Your task to perform on an android device: see sites visited before in the chrome app Image 0: 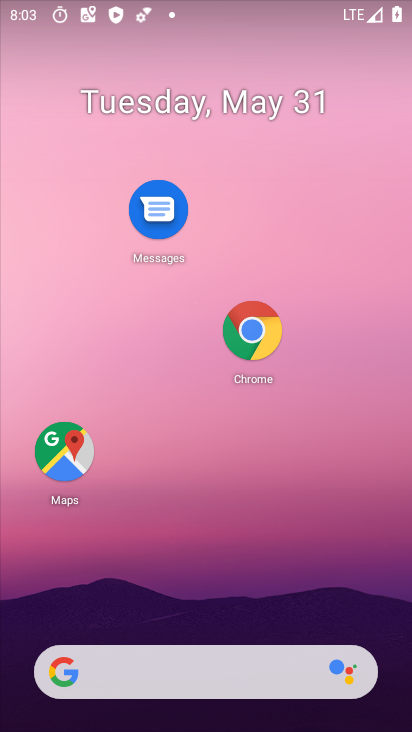
Step 0: click (249, 334)
Your task to perform on an android device: see sites visited before in the chrome app Image 1: 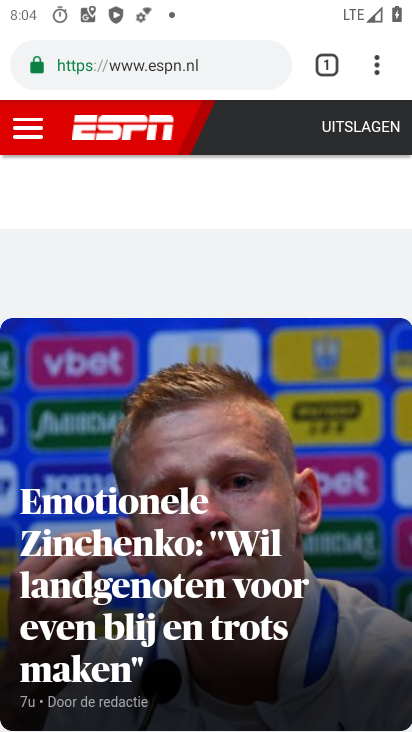
Step 1: click (381, 72)
Your task to perform on an android device: see sites visited before in the chrome app Image 2: 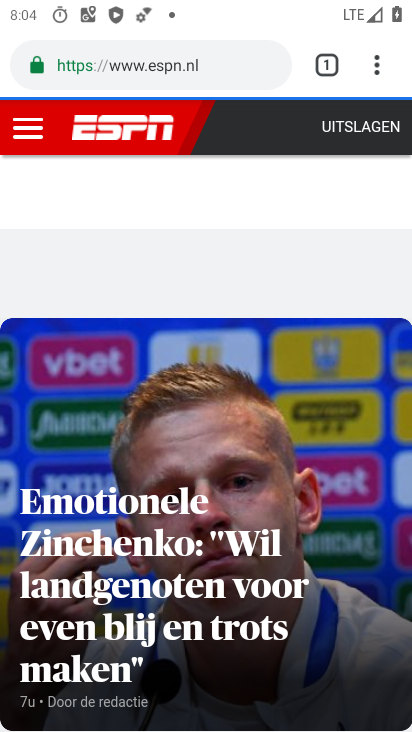
Step 2: click (371, 54)
Your task to perform on an android device: see sites visited before in the chrome app Image 3: 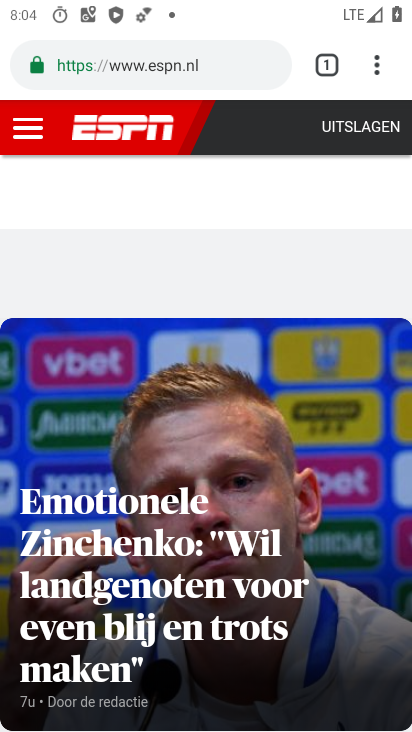
Step 3: click (371, 69)
Your task to perform on an android device: see sites visited before in the chrome app Image 4: 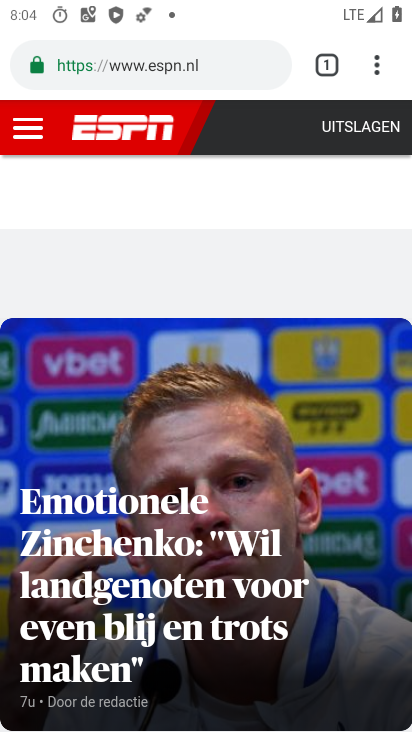
Step 4: click (378, 72)
Your task to perform on an android device: see sites visited before in the chrome app Image 5: 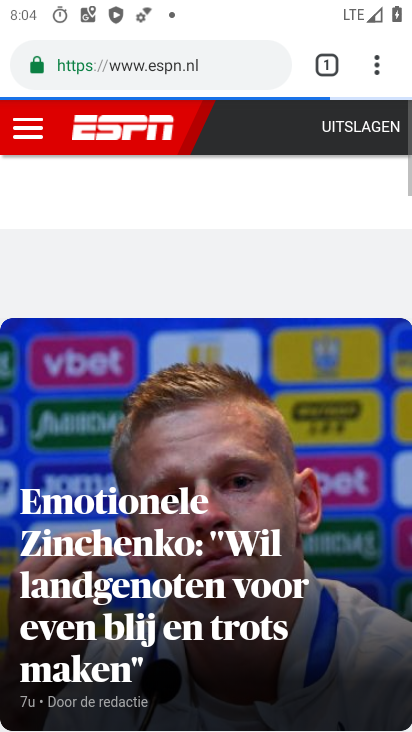
Step 5: click (377, 59)
Your task to perform on an android device: see sites visited before in the chrome app Image 6: 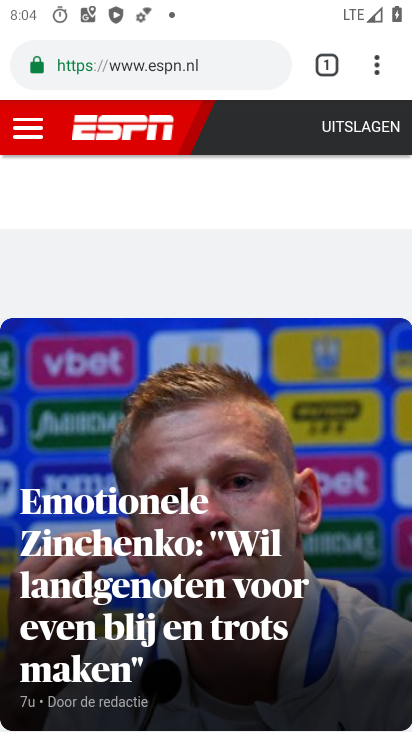
Step 6: click (380, 64)
Your task to perform on an android device: see sites visited before in the chrome app Image 7: 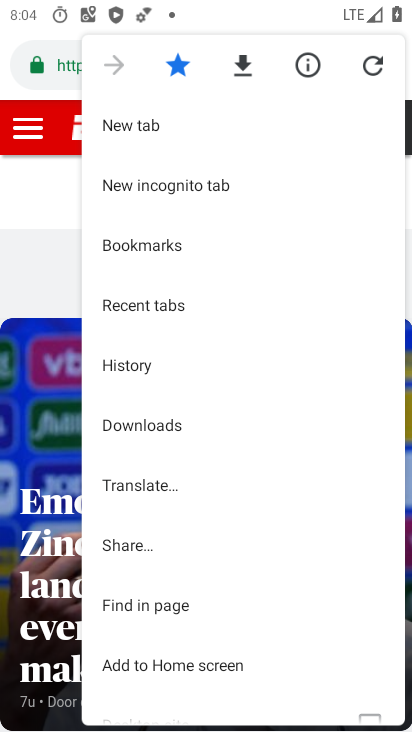
Step 7: click (157, 362)
Your task to perform on an android device: see sites visited before in the chrome app Image 8: 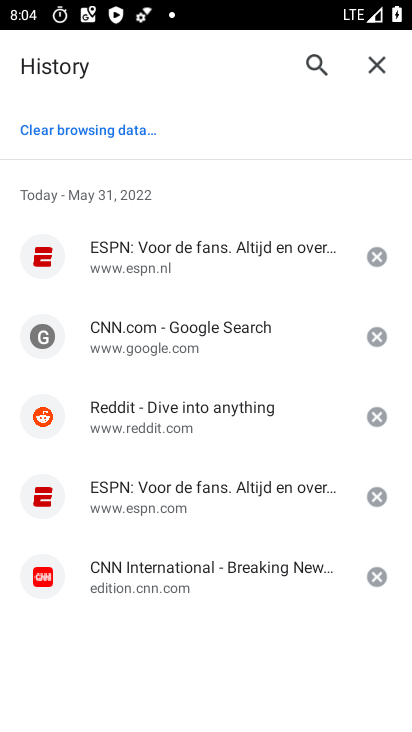
Step 8: task complete